Your task to perform on an android device: Open Youtube and go to "Your channel" Image 0: 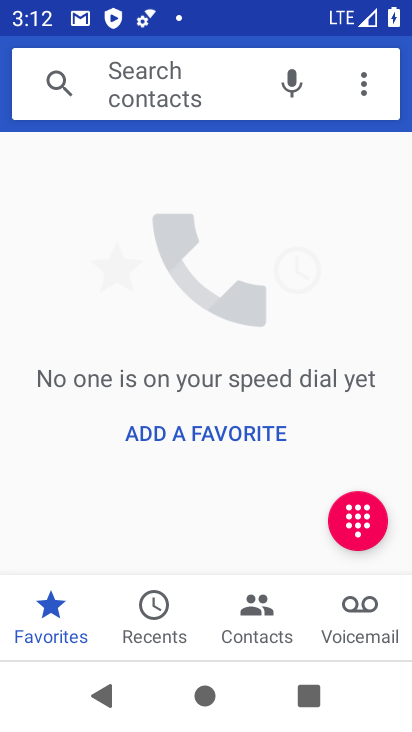
Step 0: press home button
Your task to perform on an android device: Open Youtube and go to "Your channel" Image 1: 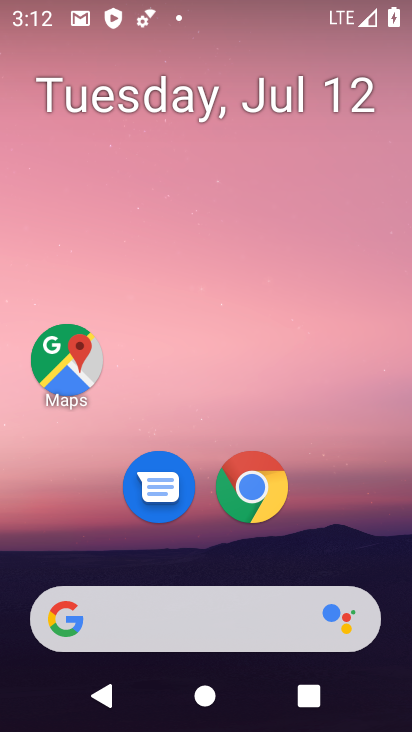
Step 1: drag from (334, 639) to (386, 166)
Your task to perform on an android device: Open Youtube and go to "Your channel" Image 2: 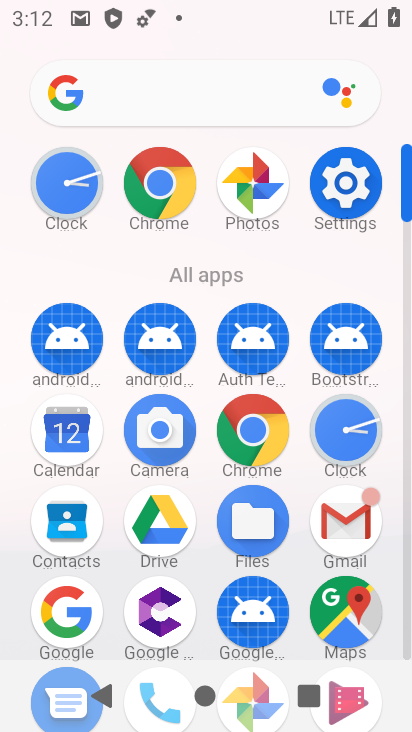
Step 2: drag from (280, 510) to (326, 17)
Your task to perform on an android device: Open Youtube and go to "Your channel" Image 3: 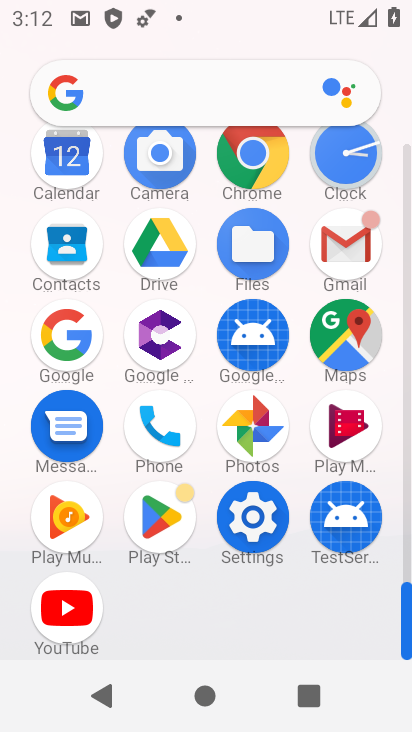
Step 3: click (53, 638)
Your task to perform on an android device: Open Youtube and go to "Your channel" Image 4: 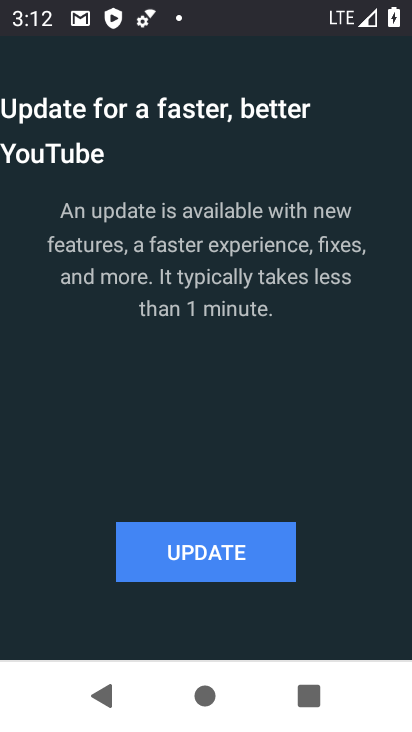
Step 4: press home button
Your task to perform on an android device: Open Youtube and go to "Your channel" Image 5: 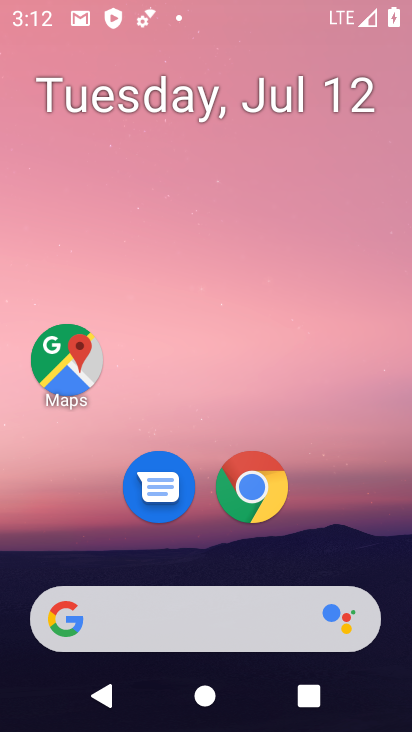
Step 5: drag from (218, 631) to (264, 204)
Your task to perform on an android device: Open Youtube and go to "Your channel" Image 6: 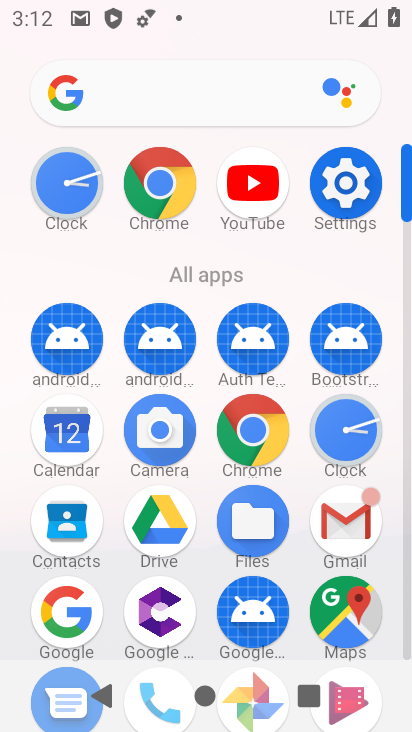
Step 6: click (275, 191)
Your task to perform on an android device: Open Youtube and go to "Your channel" Image 7: 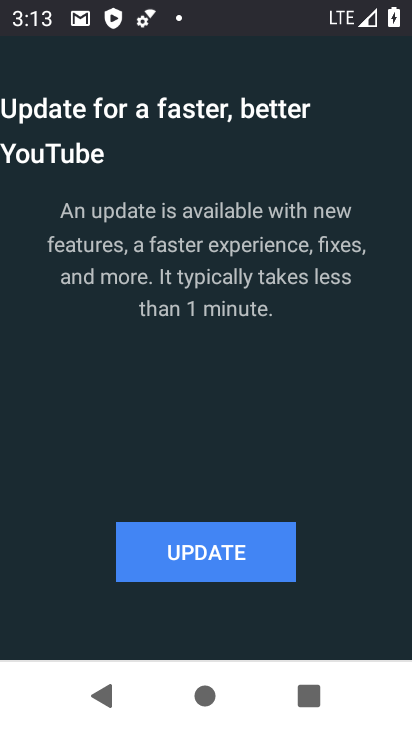
Step 7: task complete